Your task to perform on an android device: Go to settings Image 0: 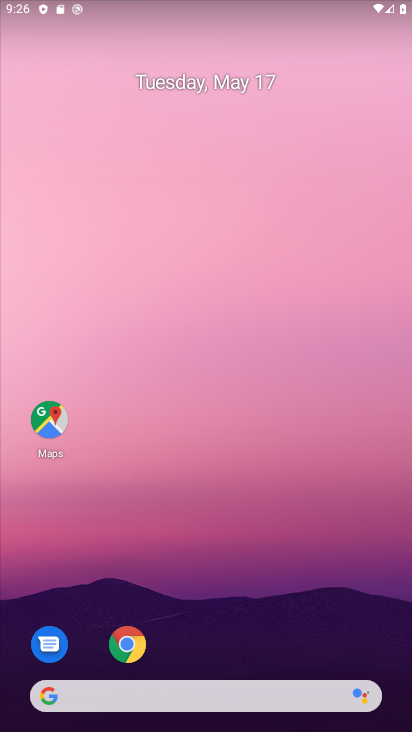
Step 0: drag from (175, 673) to (264, 110)
Your task to perform on an android device: Go to settings Image 1: 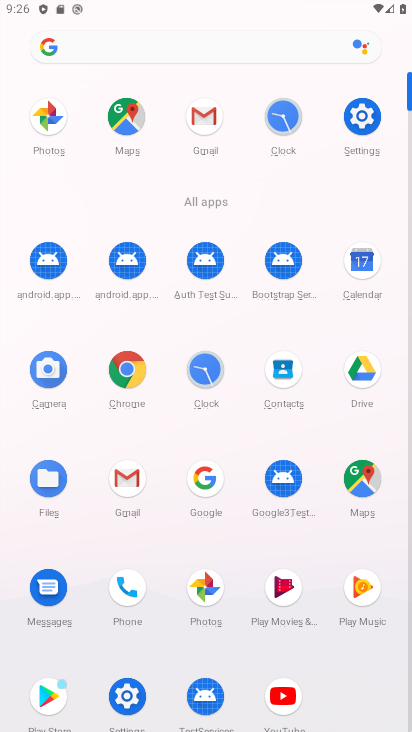
Step 1: click (130, 700)
Your task to perform on an android device: Go to settings Image 2: 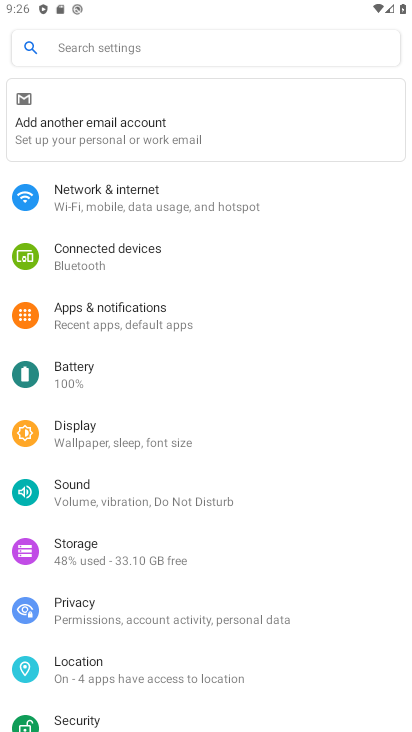
Step 2: task complete